Your task to perform on an android device: Is it going to rain tomorrow? Image 0: 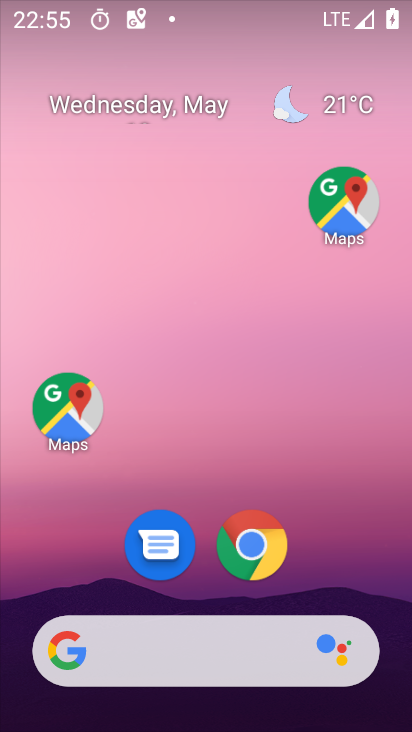
Step 0: click (216, 646)
Your task to perform on an android device: Is it going to rain tomorrow? Image 1: 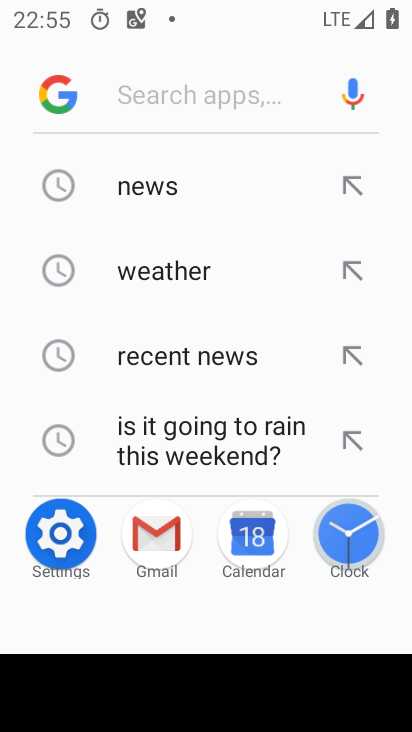
Step 1: type "is it going to rain tomorrow"
Your task to perform on an android device: Is it going to rain tomorrow? Image 2: 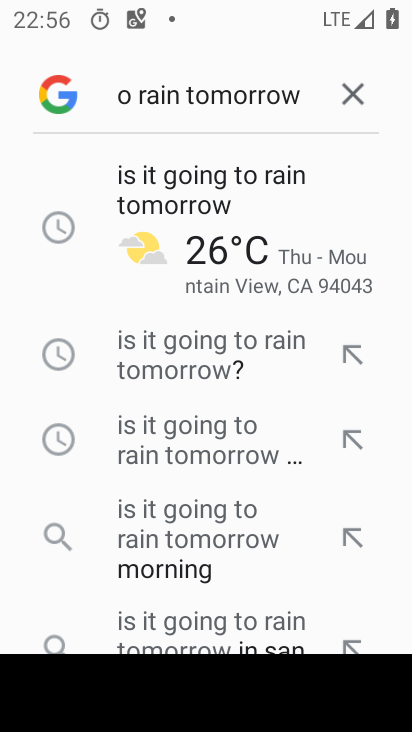
Step 2: click (222, 215)
Your task to perform on an android device: Is it going to rain tomorrow? Image 3: 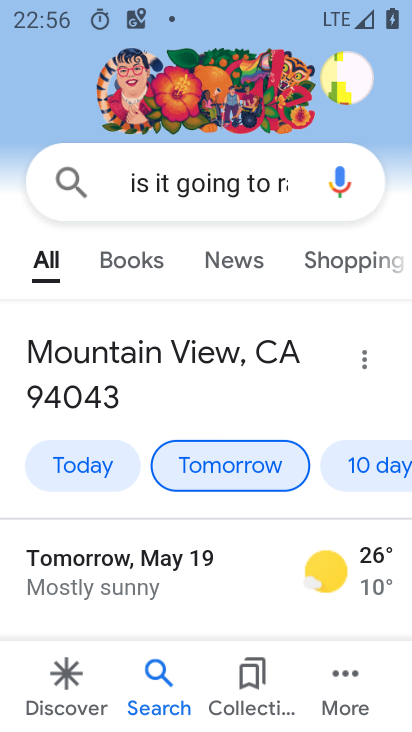
Step 3: task complete